Your task to perform on an android device: change timer sound Image 0: 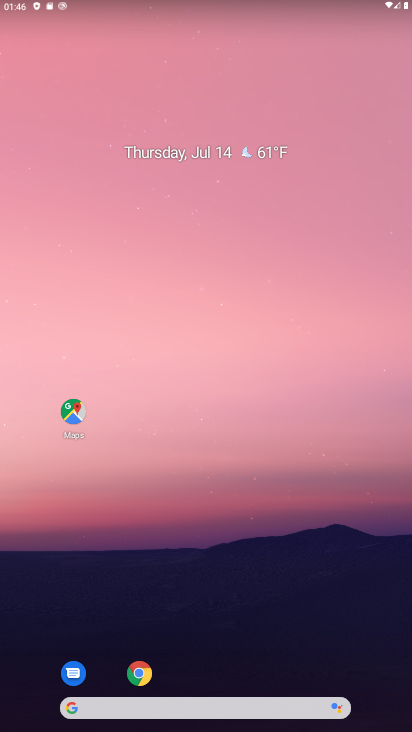
Step 0: drag from (267, 657) to (266, 330)
Your task to perform on an android device: change timer sound Image 1: 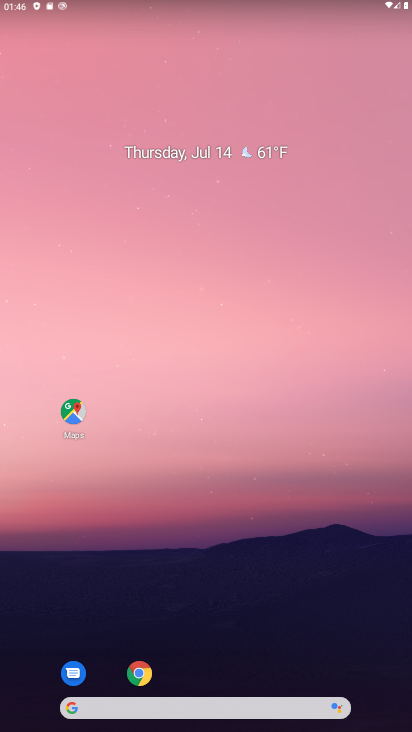
Step 1: drag from (273, 664) to (329, 0)
Your task to perform on an android device: change timer sound Image 2: 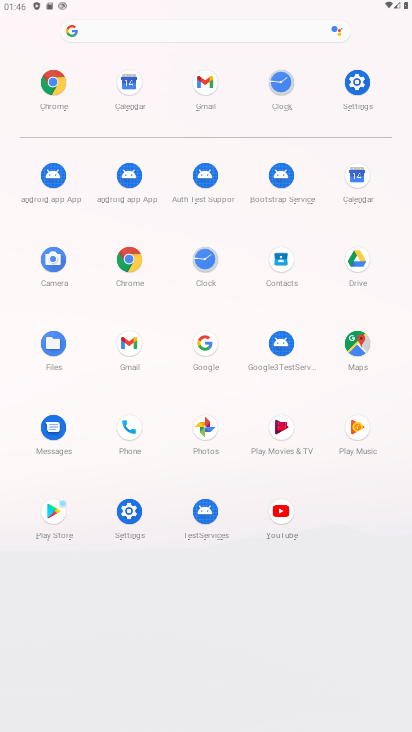
Step 2: click (276, 121)
Your task to perform on an android device: change timer sound Image 3: 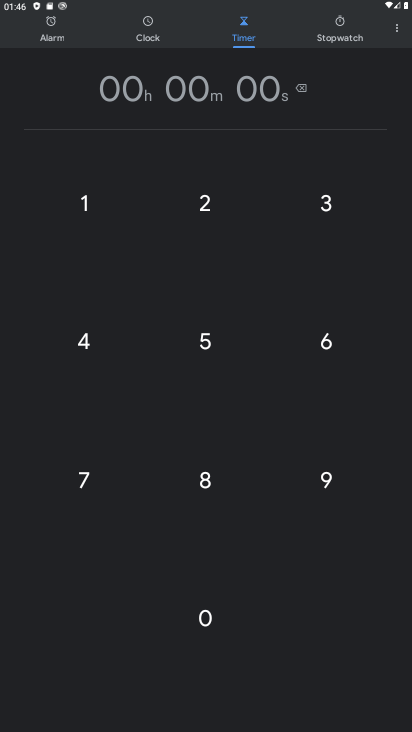
Step 3: click (392, 22)
Your task to perform on an android device: change timer sound Image 4: 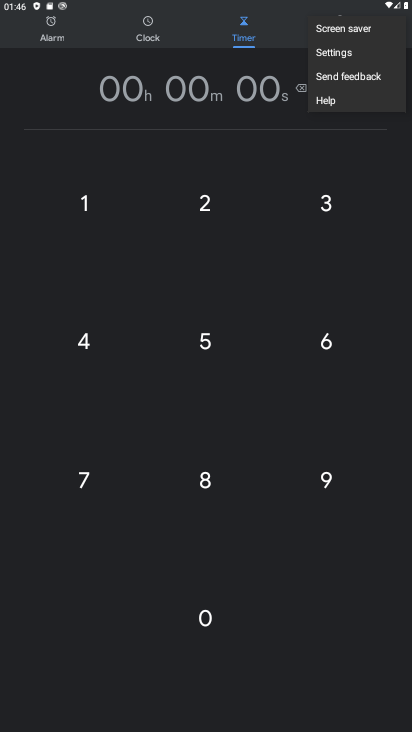
Step 4: click (369, 56)
Your task to perform on an android device: change timer sound Image 5: 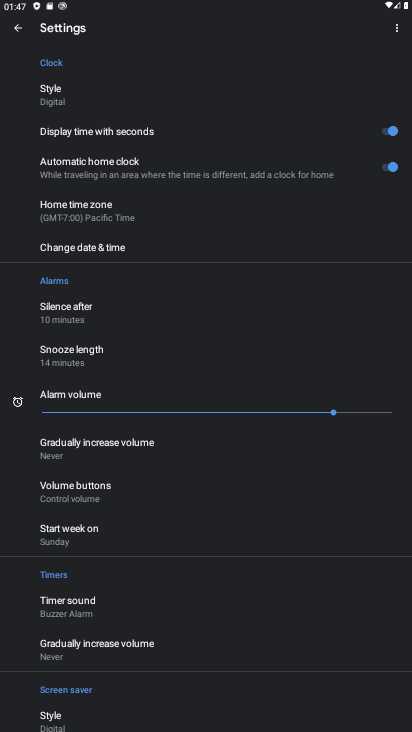
Step 5: click (114, 590)
Your task to perform on an android device: change timer sound Image 6: 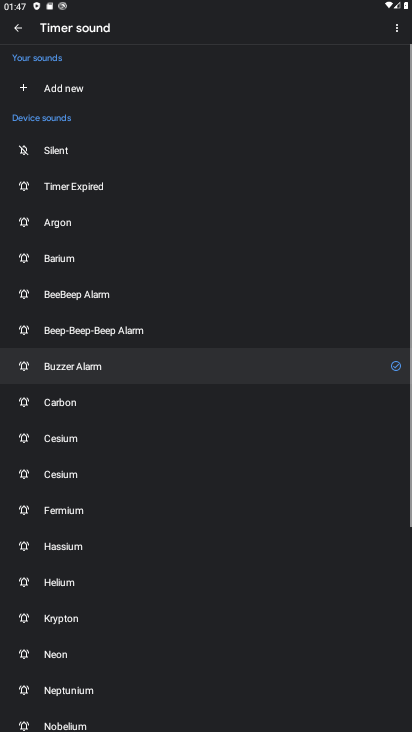
Step 6: click (157, 490)
Your task to perform on an android device: change timer sound Image 7: 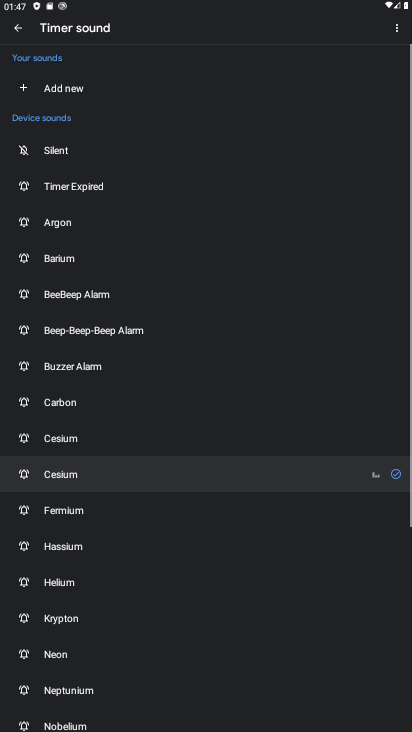
Step 7: task complete